Your task to perform on an android device: allow notifications from all sites in the chrome app Image 0: 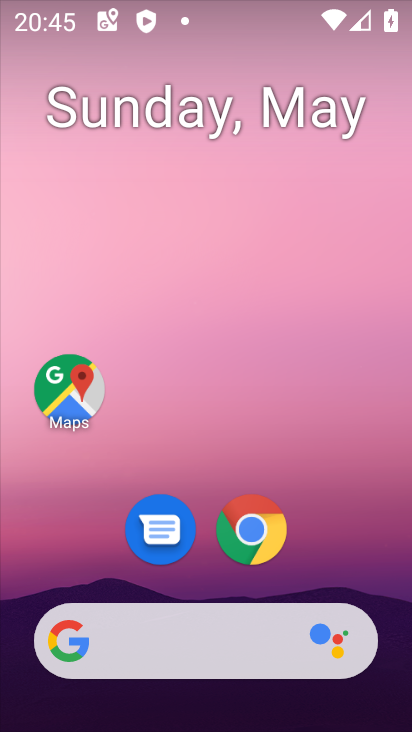
Step 0: click (241, 537)
Your task to perform on an android device: allow notifications from all sites in the chrome app Image 1: 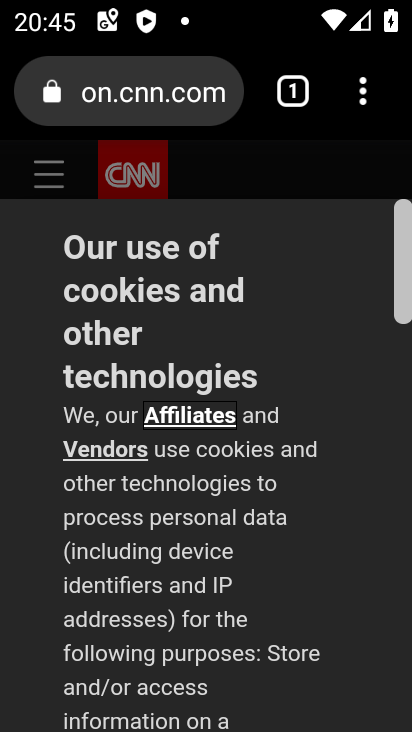
Step 1: click (363, 94)
Your task to perform on an android device: allow notifications from all sites in the chrome app Image 2: 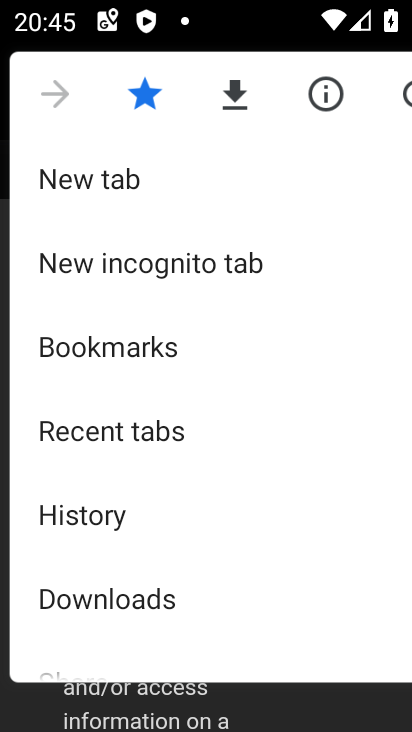
Step 2: drag from (187, 554) to (164, 114)
Your task to perform on an android device: allow notifications from all sites in the chrome app Image 3: 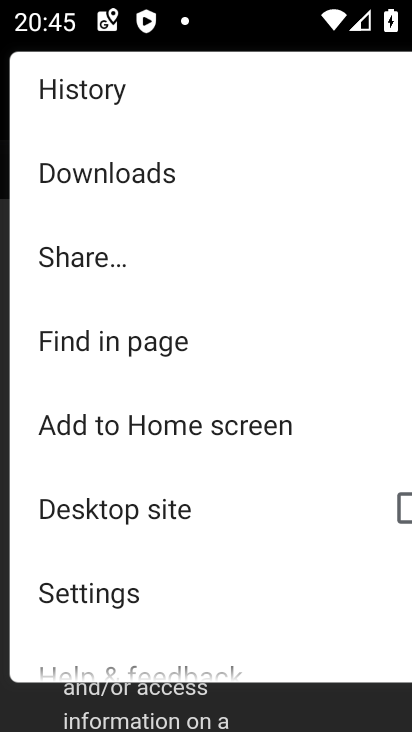
Step 3: drag from (203, 615) to (206, 158)
Your task to perform on an android device: allow notifications from all sites in the chrome app Image 4: 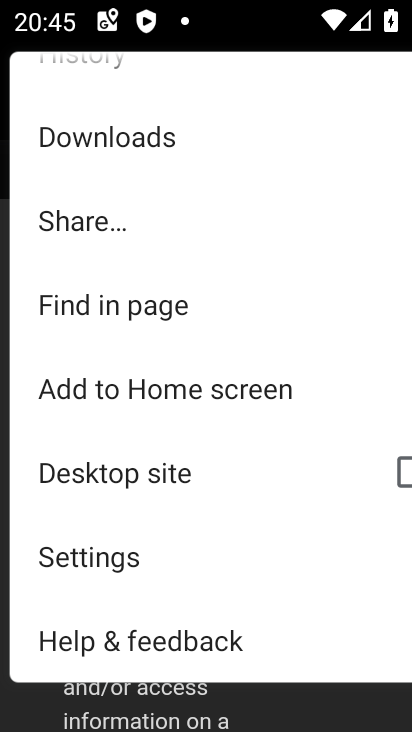
Step 4: click (99, 558)
Your task to perform on an android device: allow notifications from all sites in the chrome app Image 5: 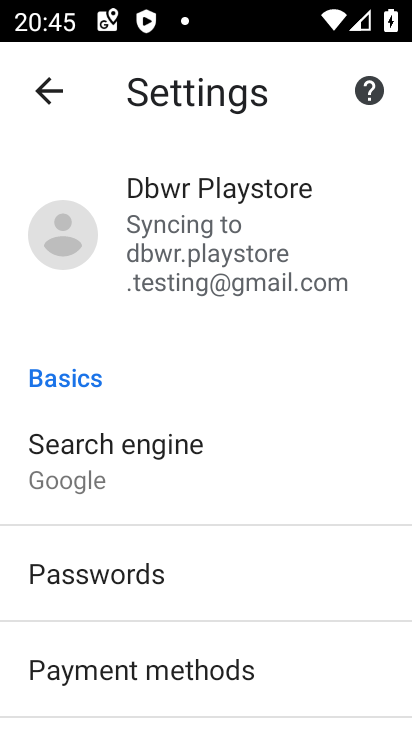
Step 5: drag from (239, 650) to (232, 148)
Your task to perform on an android device: allow notifications from all sites in the chrome app Image 6: 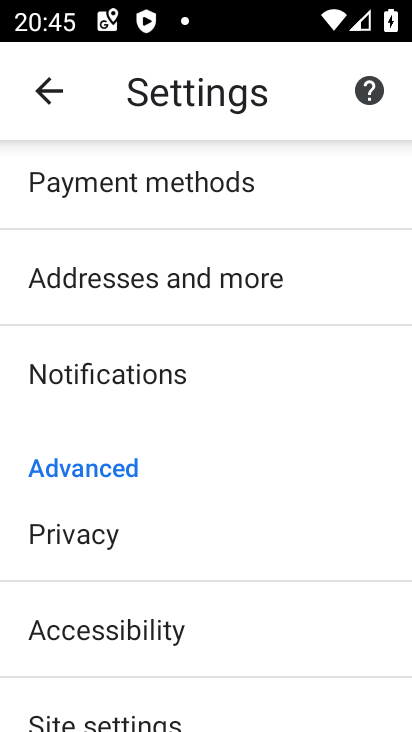
Step 6: drag from (245, 594) to (207, 143)
Your task to perform on an android device: allow notifications from all sites in the chrome app Image 7: 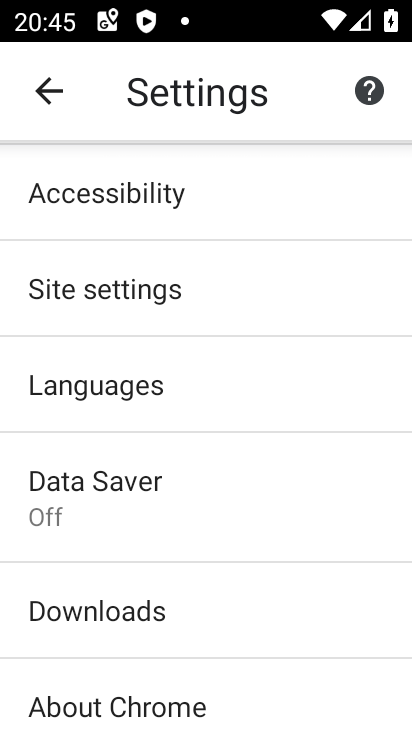
Step 7: click (73, 302)
Your task to perform on an android device: allow notifications from all sites in the chrome app Image 8: 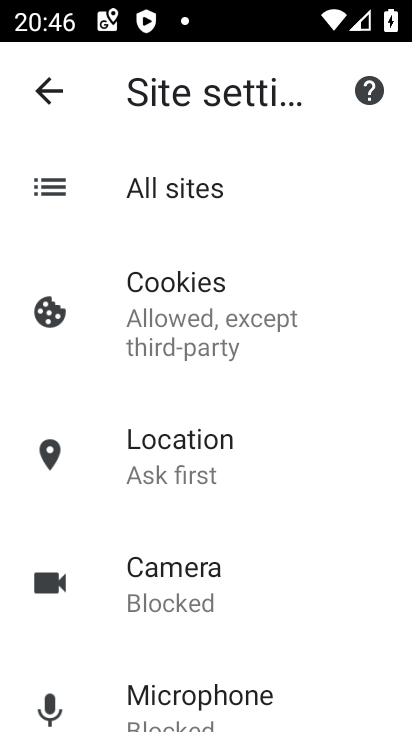
Step 8: drag from (302, 650) to (265, 170)
Your task to perform on an android device: allow notifications from all sites in the chrome app Image 9: 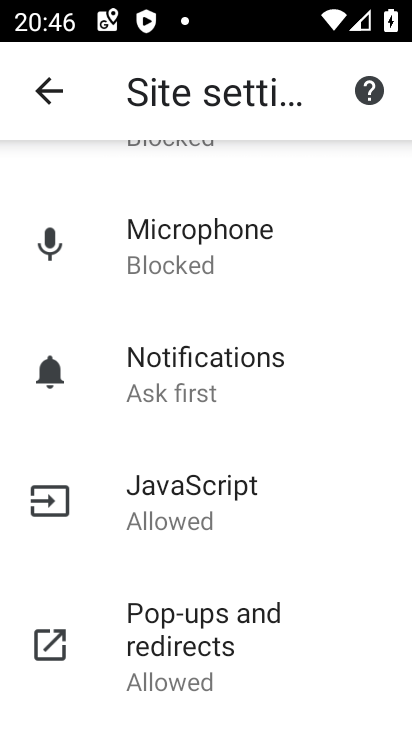
Step 9: click (168, 385)
Your task to perform on an android device: allow notifications from all sites in the chrome app Image 10: 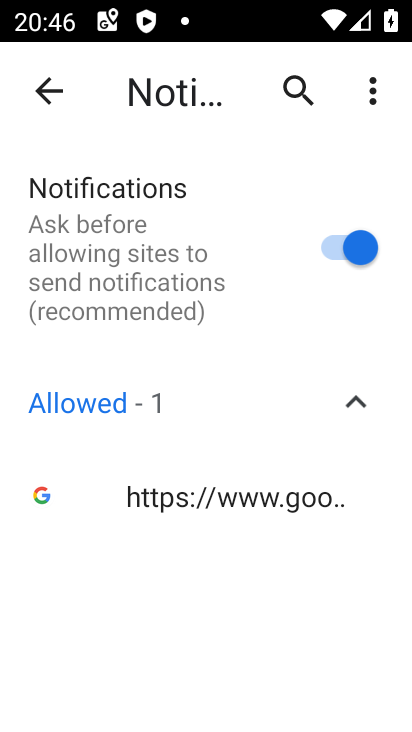
Step 10: task complete